Your task to perform on an android device: turn off data saver in the chrome app Image 0: 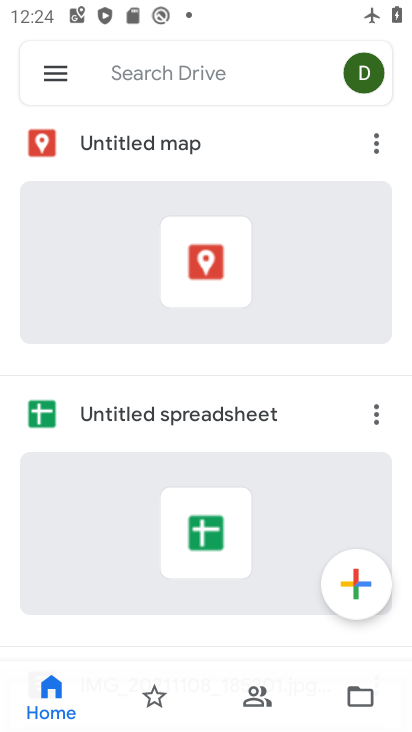
Step 0: press home button
Your task to perform on an android device: turn off data saver in the chrome app Image 1: 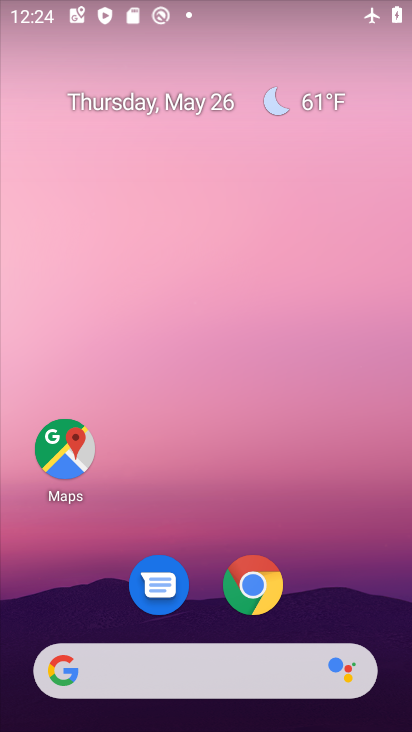
Step 1: click (254, 582)
Your task to perform on an android device: turn off data saver in the chrome app Image 2: 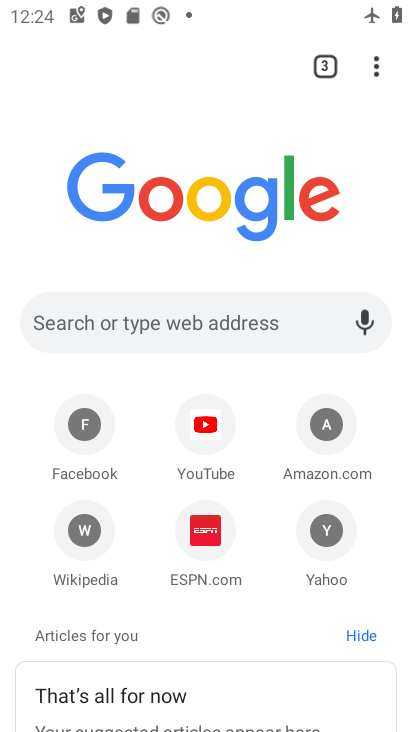
Step 2: click (377, 63)
Your task to perform on an android device: turn off data saver in the chrome app Image 3: 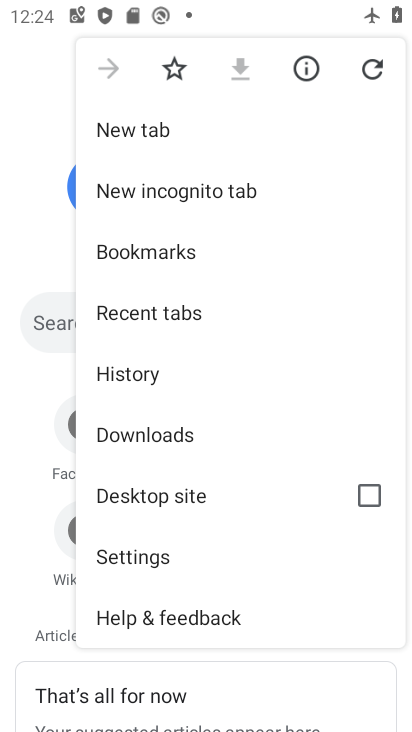
Step 3: click (156, 545)
Your task to perform on an android device: turn off data saver in the chrome app Image 4: 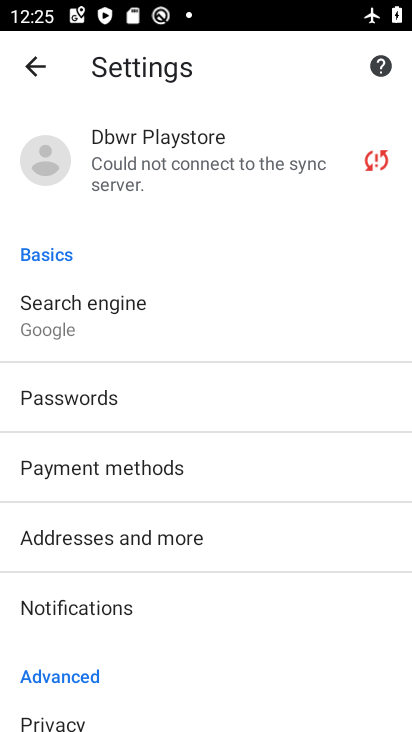
Step 4: drag from (222, 499) to (239, 152)
Your task to perform on an android device: turn off data saver in the chrome app Image 5: 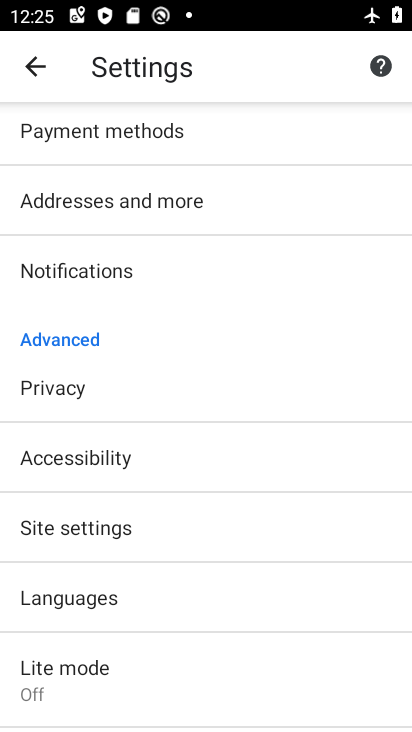
Step 5: click (142, 688)
Your task to perform on an android device: turn off data saver in the chrome app Image 6: 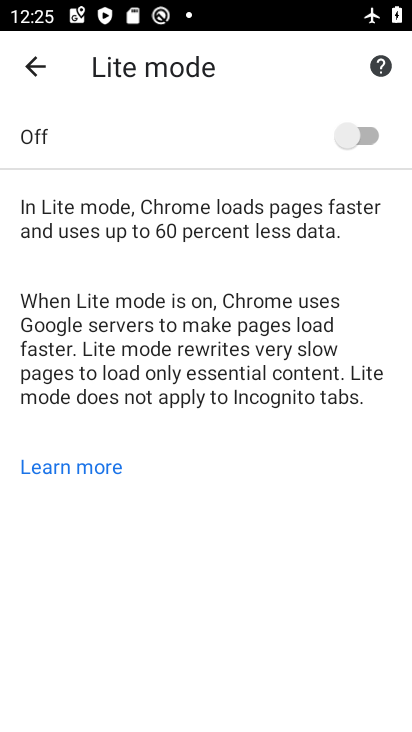
Step 6: task complete